Your task to perform on an android device: Go to sound settings Image 0: 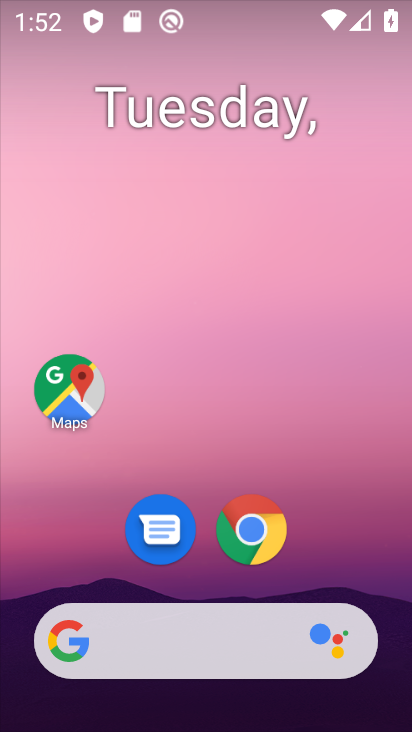
Step 0: drag from (240, 561) to (233, 13)
Your task to perform on an android device: Go to sound settings Image 1: 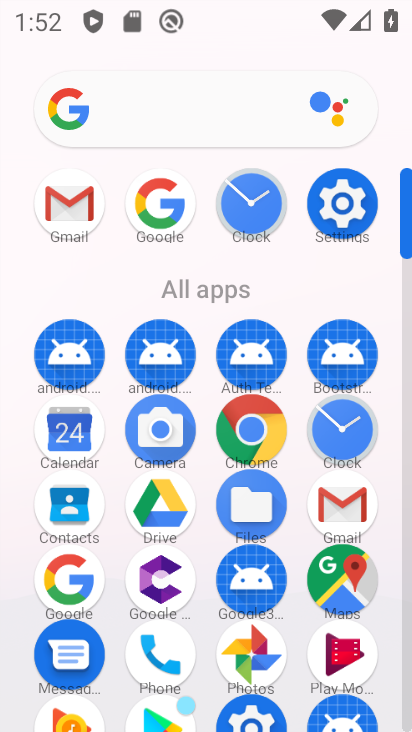
Step 1: click (337, 204)
Your task to perform on an android device: Go to sound settings Image 2: 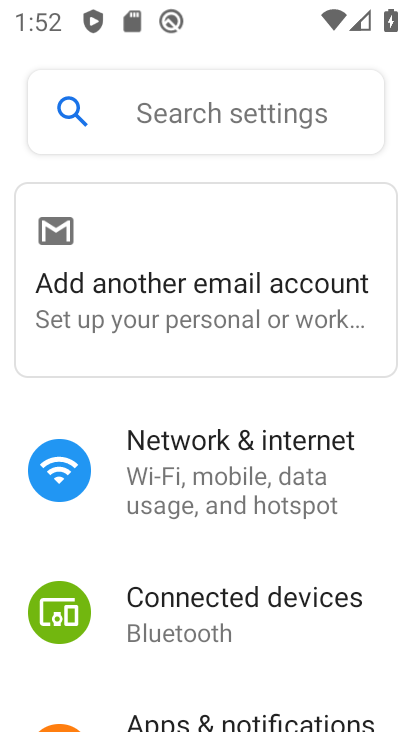
Step 2: drag from (258, 630) to (312, 54)
Your task to perform on an android device: Go to sound settings Image 3: 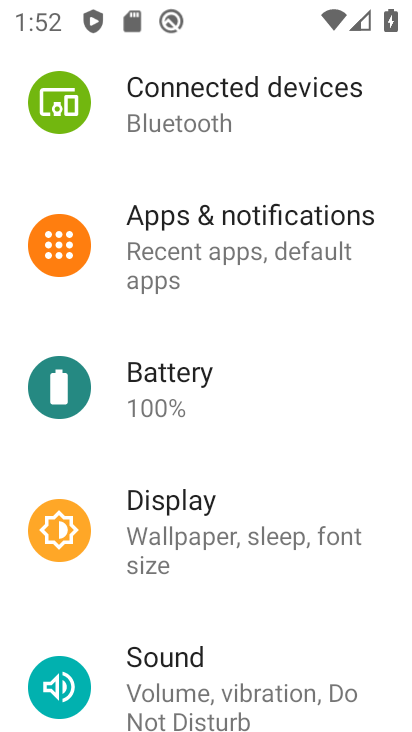
Step 3: click (186, 679)
Your task to perform on an android device: Go to sound settings Image 4: 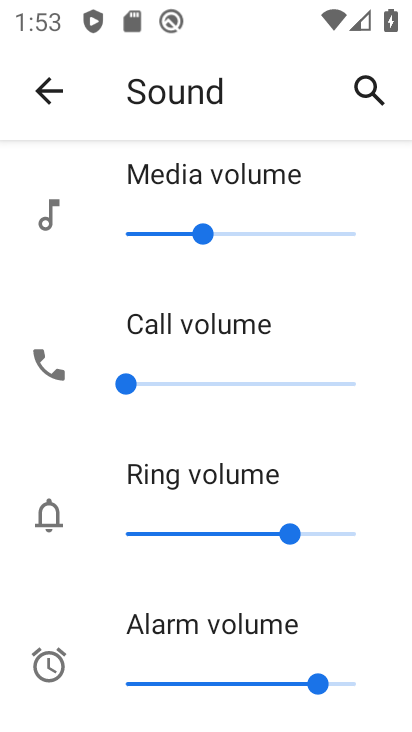
Step 4: task complete